Your task to perform on an android device: Go to Yahoo.com Image 0: 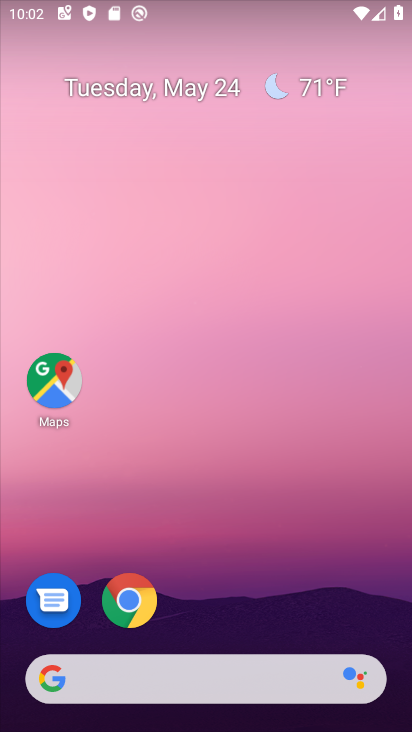
Step 0: click (136, 607)
Your task to perform on an android device: Go to Yahoo.com Image 1: 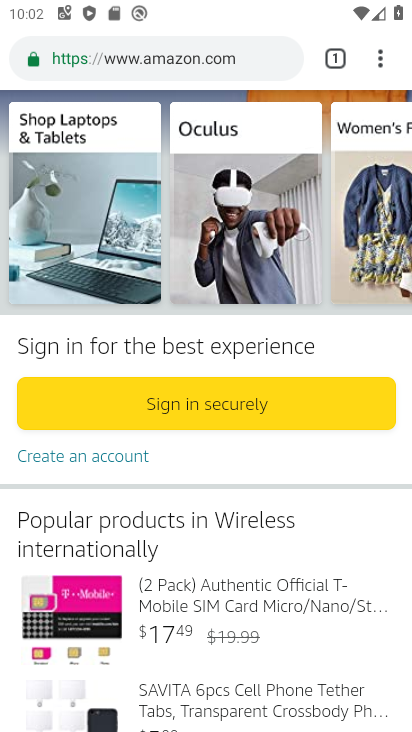
Step 1: press back button
Your task to perform on an android device: Go to Yahoo.com Image 2: 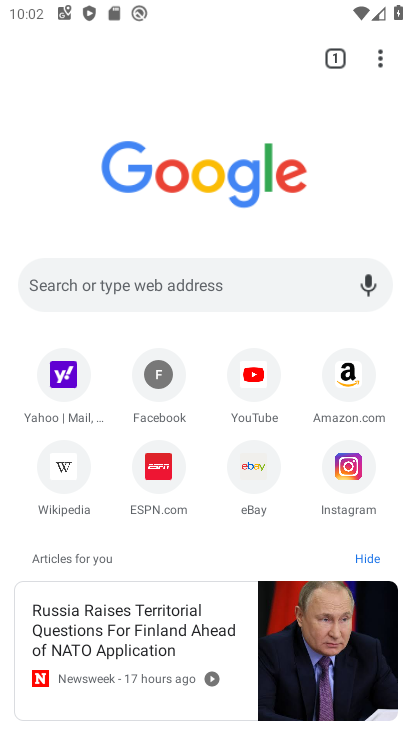
Step 2: click (57, 379)
Your task to perform on an android device: Go to Yahoo.com Image 3: 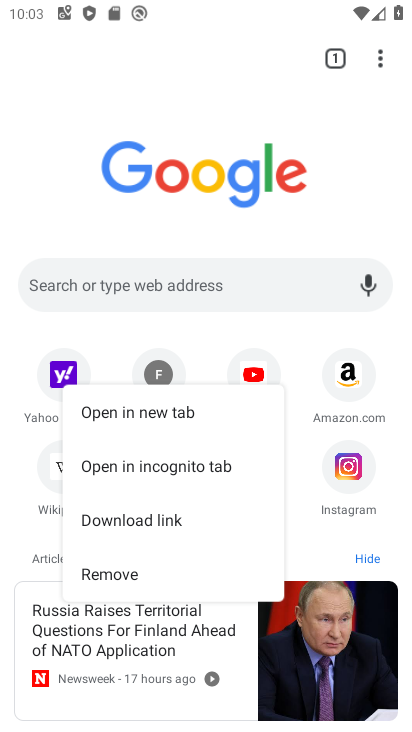
Step 3: click (62, 372)
Your task to perform on an android device: Go to Yahoo.com Image 4: 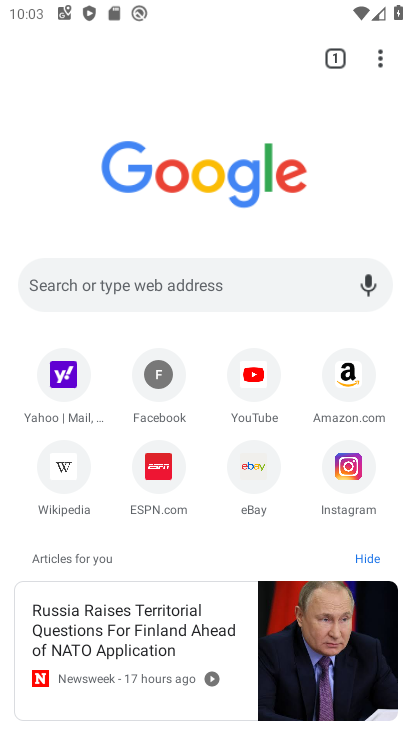
Step 4: click (71, 412)
Your task to perform on an android device: Go to Yahoo.com Image 5: 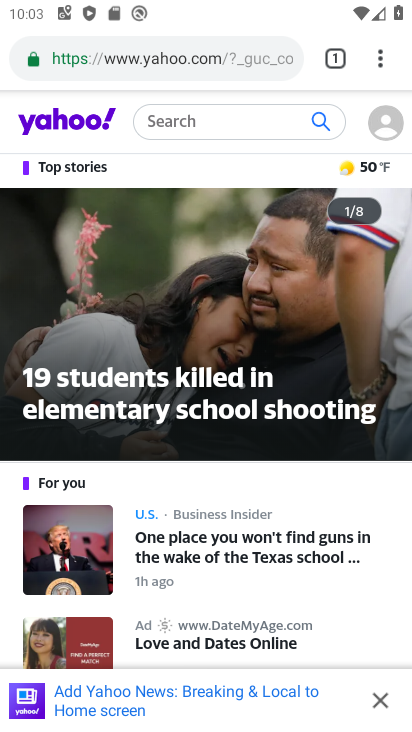
Step 5: task complete